Your task to perform on an android device: turn on sleep mode Image 0: 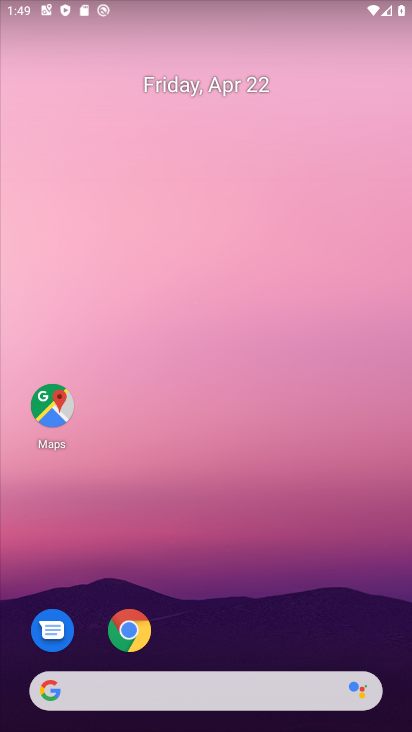
Step 0: drag from (364, 568) to (326, 128)
Your task to perform on an android device: turn on sleep mode Image 1: 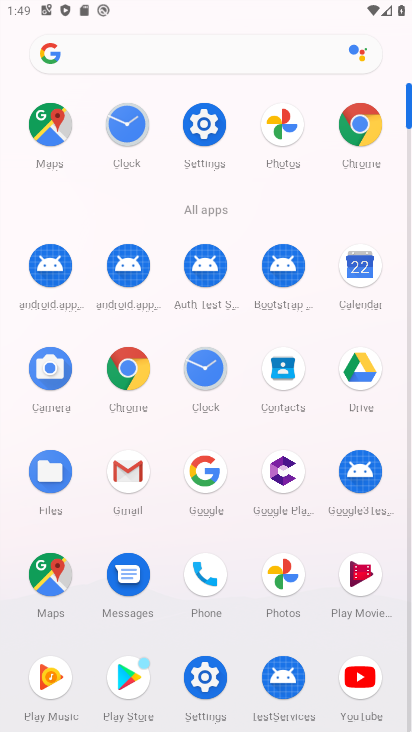
Step 1: click (203, 665)
Your task to perform on an android device: turn on sleep mode Image 2: 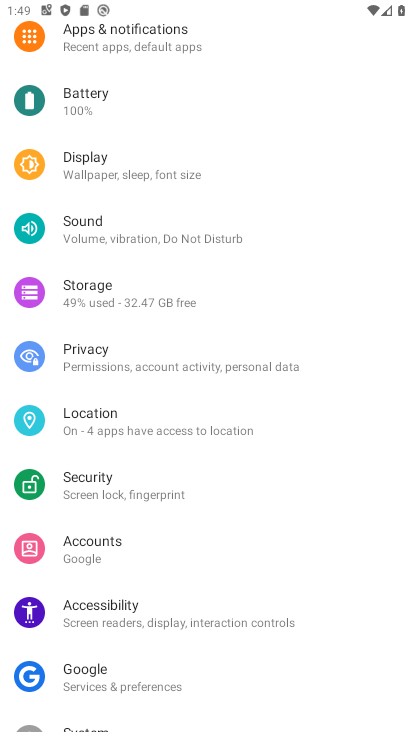
Step 2: drag from (327, 178) to (298, 481)
Your task to perform on an android device: turn on sleep mode Image 3: 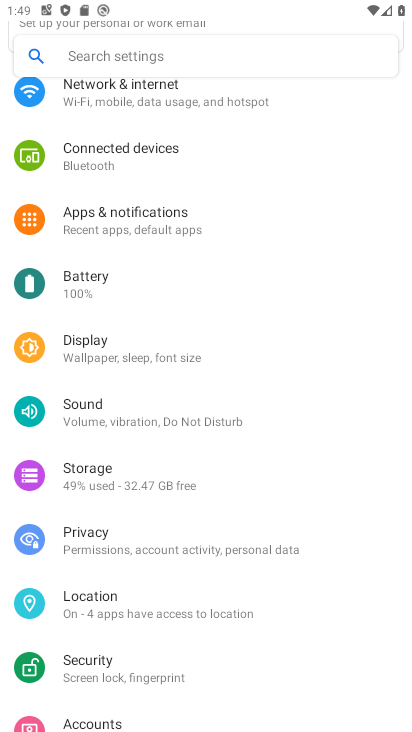
Step 3: click (251, 70)
Your task to perform on an android device: turn on sleep mode Image 4: 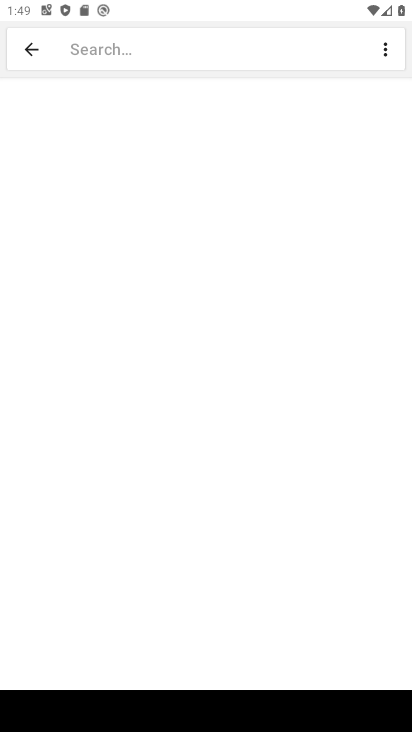
Step 4: type "sleep mode"
Your task to perform on an android device: turn on sleep mode Image 5: 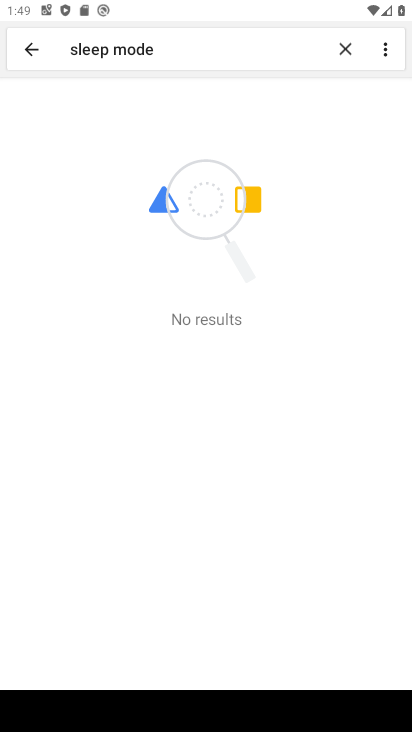
Step 5: task complete